Your task to perform on an android device: check out phone information Image 0: 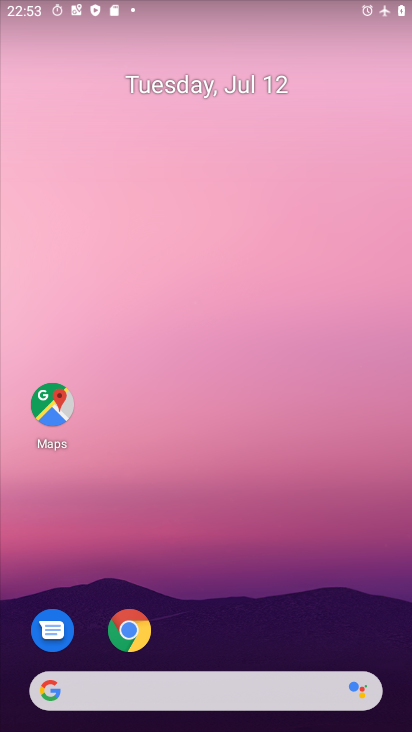
Step 0: drag from (226, 643) to (273, 29)
Your task to perform on an android device: check out phone information Image 1: 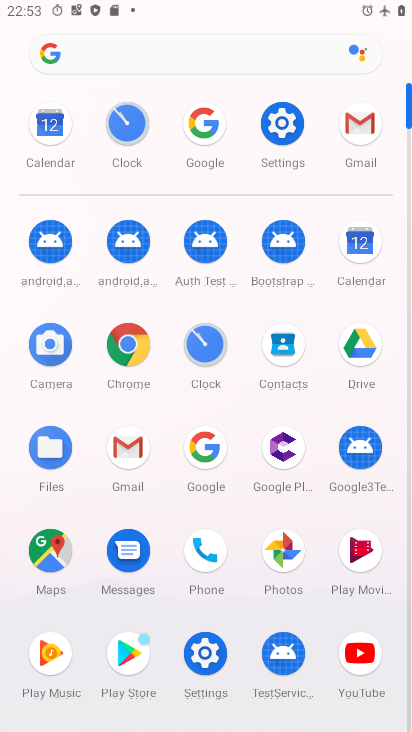
Step 1: click (286, 128)
Your task to perform on an android device: check out phone information Image 2: 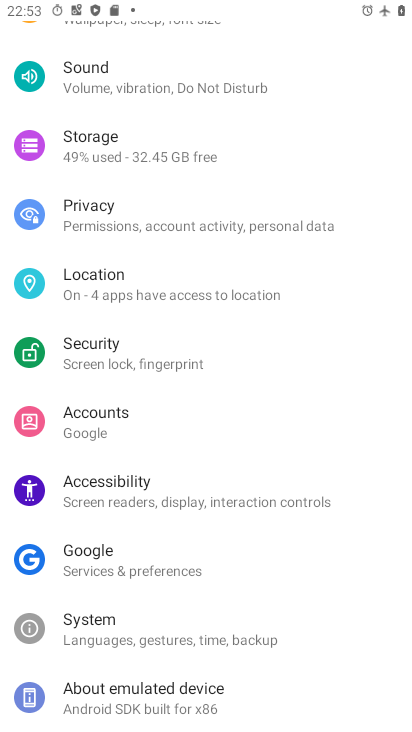
Step 2: drag from (141, 698) to (227, 26)
Your task to perform on an android device: check out phone information Image 3: 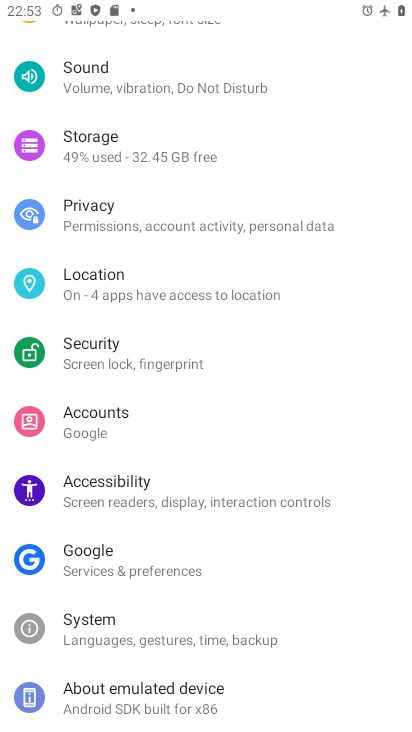
Step 3: click (153, 707)
Your task to perform on an android device: check out phone information Image 4: 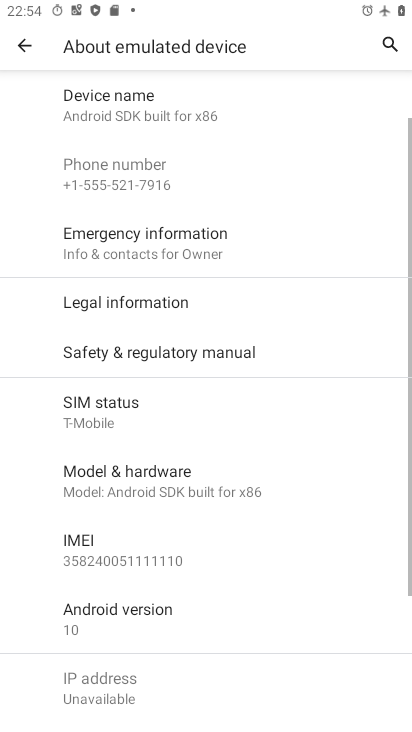
Step 4: click (134, 243)
Your task to perform on an android device: check out phone information Image 5: 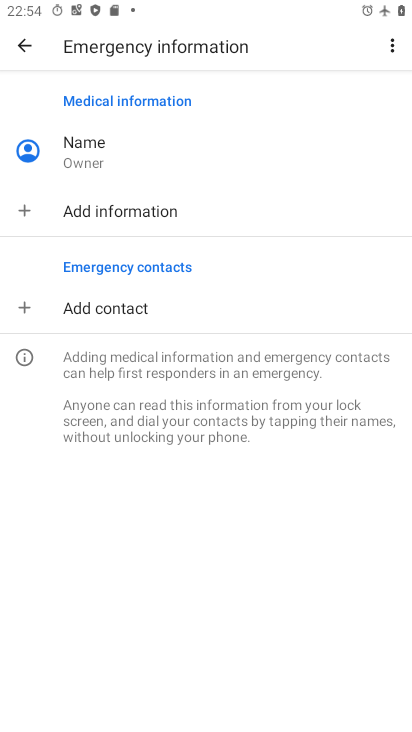
Step 5: task complete